Your task to perform on an android device: turn off airplane mode Image 0: 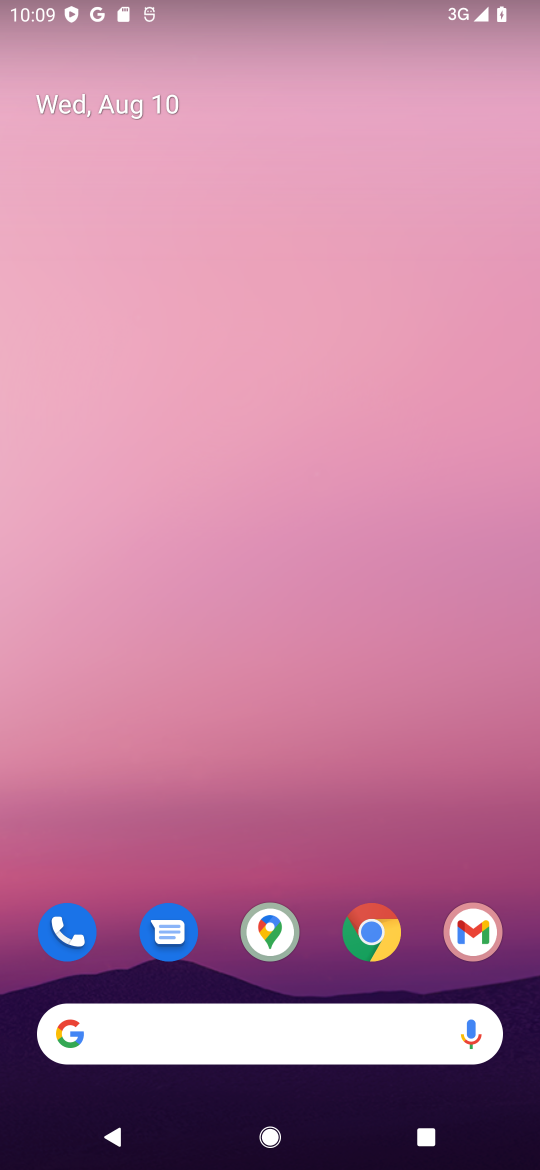
Step 0: drag from (306, 852) to (319, 58)
Your task to perform on an android device: turn off airplane mode Image 1: 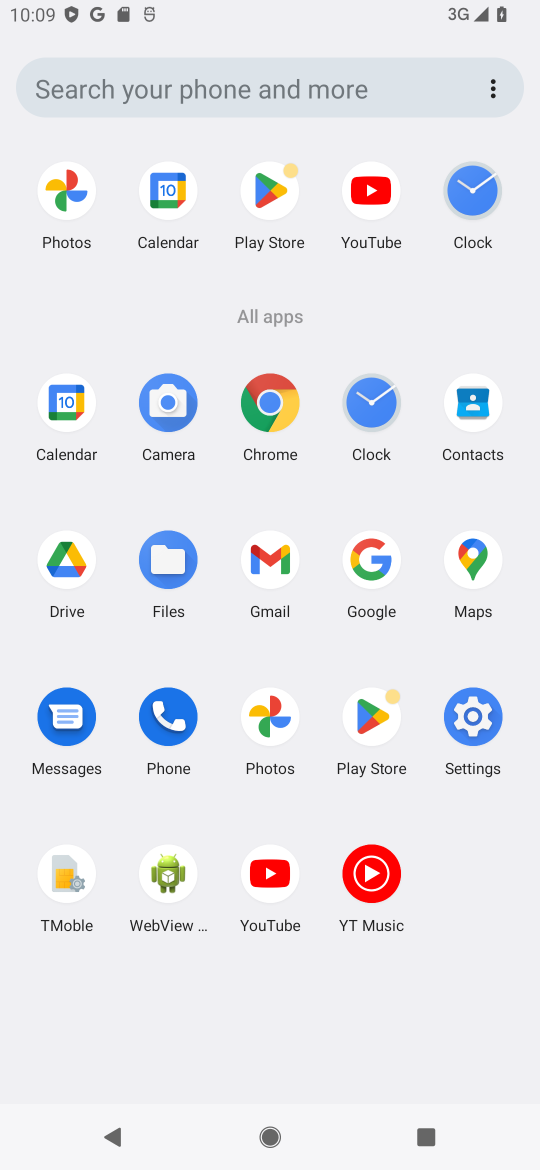
Step 1: click (471, 714)
Your task to perform on an android device: turn off airplane mode Image 2: 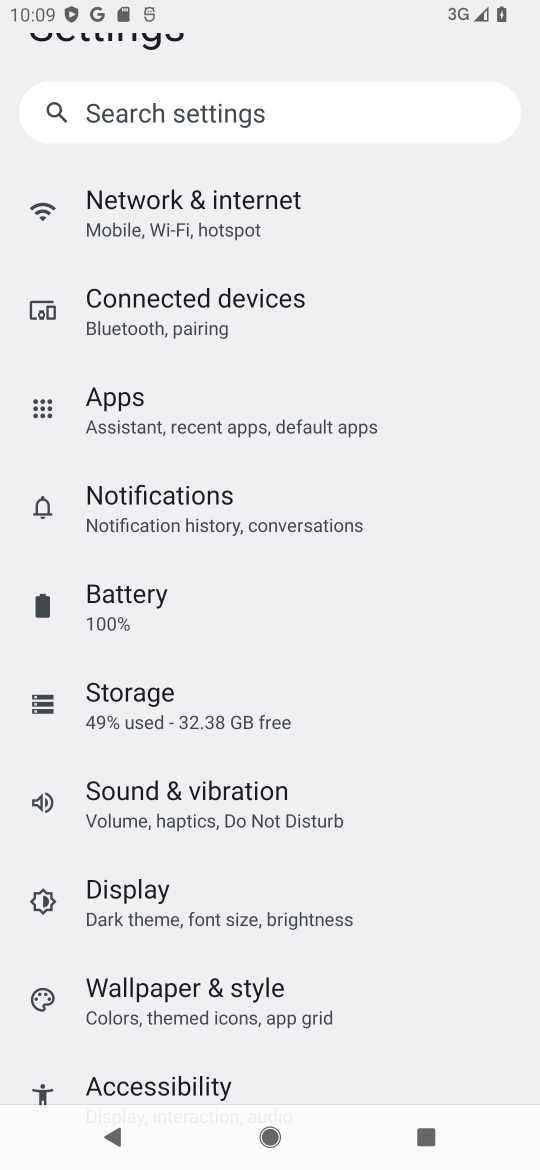
Step 2: click (206, 193)
Your task to perform on an android device: turn off airplane mode Image 3: 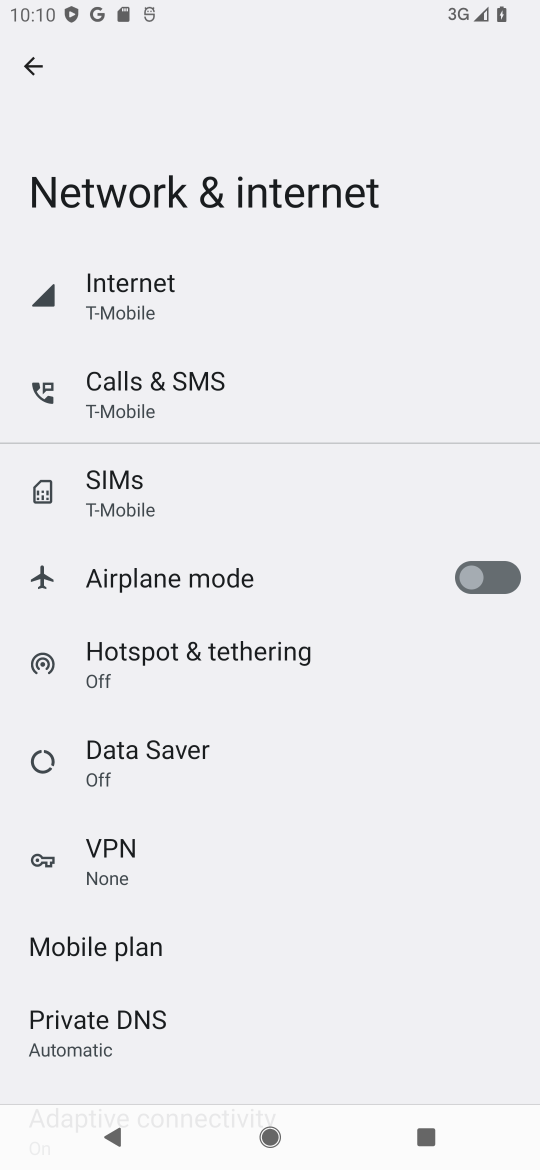
Step 3: task complete